Your task to perform on an android device: open a bookmark in the chrome app Image 0: 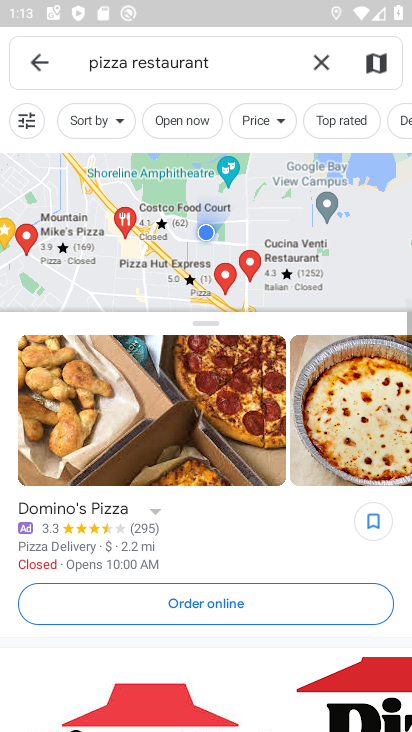
Step 0: press home button
Your task to perform on an android device: open a bookmark in the chrome app Image 1: 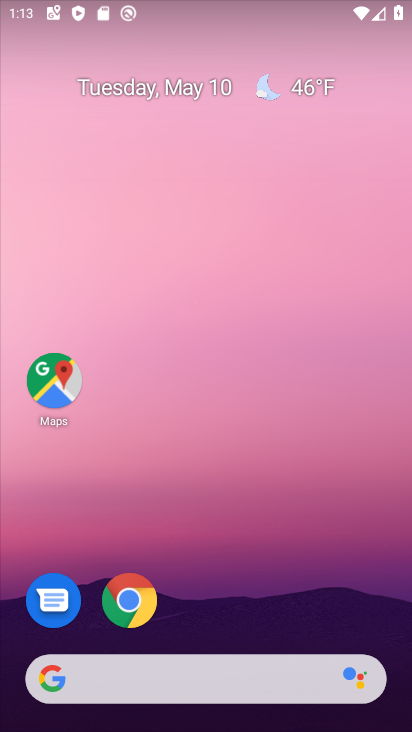
Step 1: drag from (180, 692) to (281, 152)
Your task to perform on an android device: open a bookmark in the chrome app Image 2: 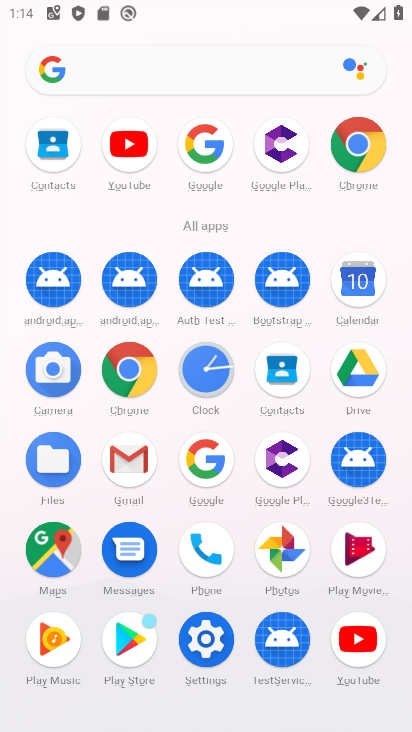
Step 2: click (360, 163)
Your task to perform on an android device: open a bookmark in the chrome app Image 3: 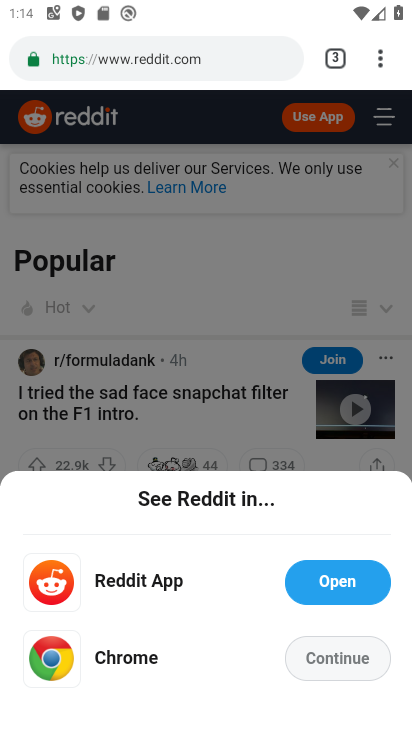
Step 3: task complete